Your task to perform on an android device: Is it going to rain this weekend? Image 0: 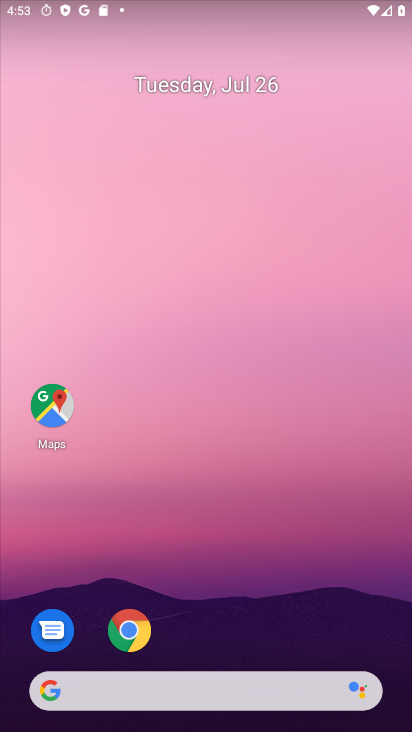
Step 0: drag from (310, 543) to (257, 140)
Your task to perform on an android device: Is it going to rain this weekend? Image 1: 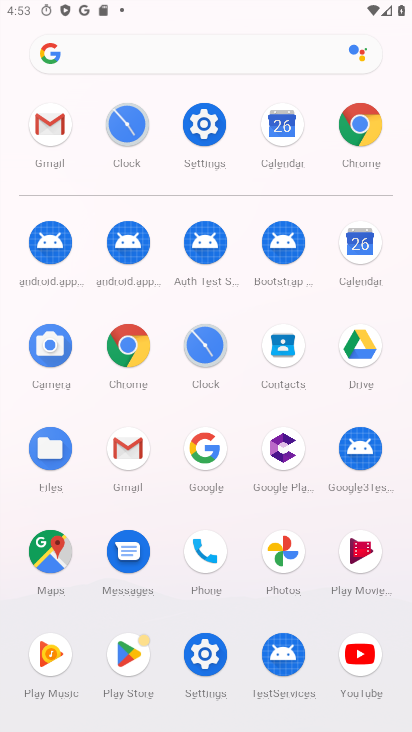
Step 1: click (363, 127)
Your task to perform on an android device: Is it going to rain this weekend? Image 2: 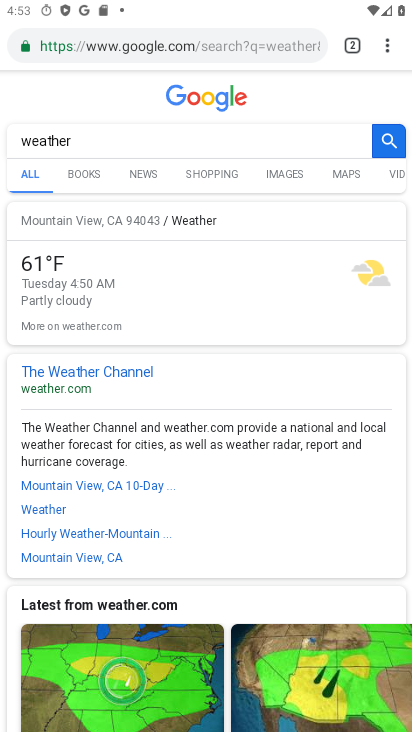
Step 2: click (236, 49)
Your task to perform on an android device: Is it going to rain this weekend? Image 3: 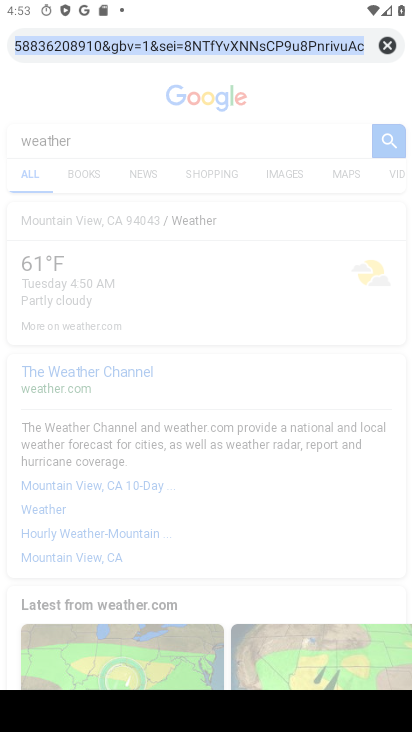
Step 3: type "weather"
Your task to perform on an android device: Is it going to rain this weekend? Image 4: 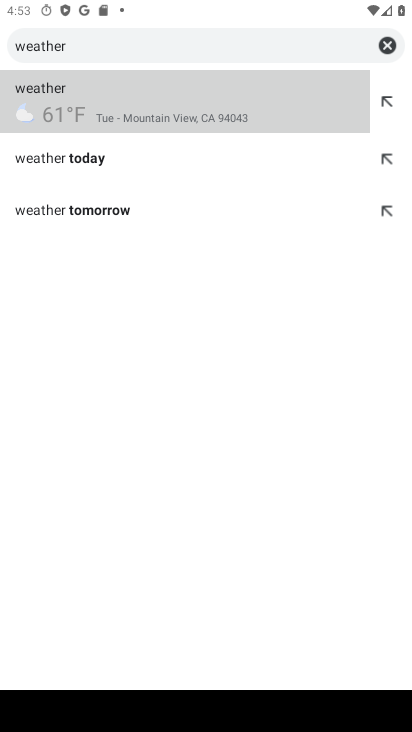
Step 4: click (134, 125)
Your task to perform on an android device: Is it going to rain this weekend? Image 5: 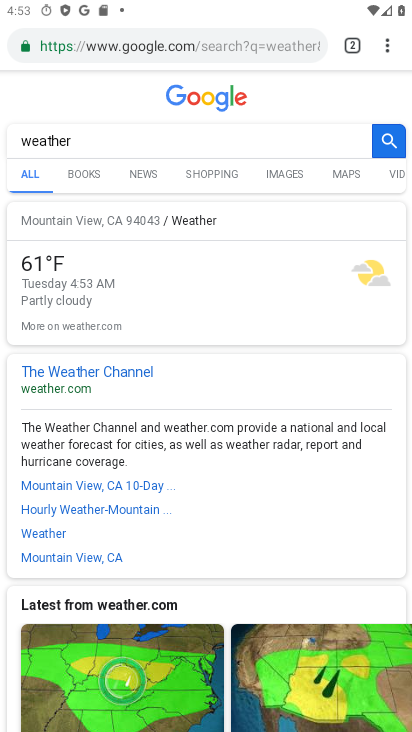
Step 5: click (201, 142)
Your task to perform on an android device: Is it going to rain this weekend? Image 6: 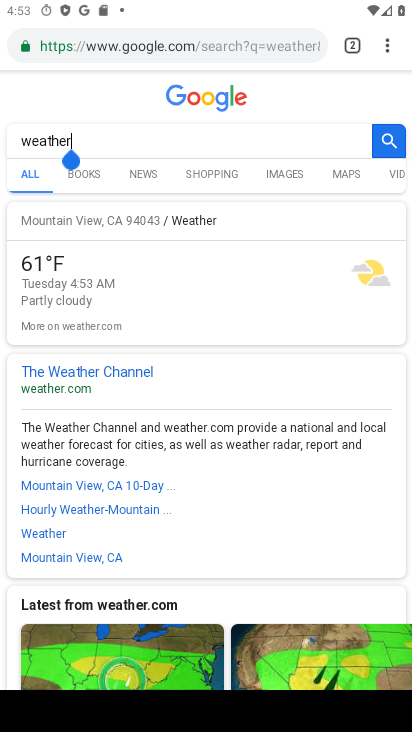
Step 6: type " weekend"
Your task to perform on an android device: Is it going to rain this weekend? Image 7: 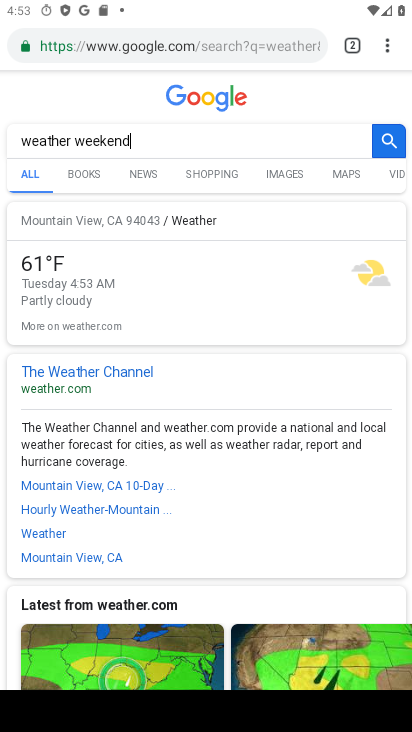
Step 7: click (394, 135)
Your task to perform on an android device: Is it going to rain this weekend? Image 8: 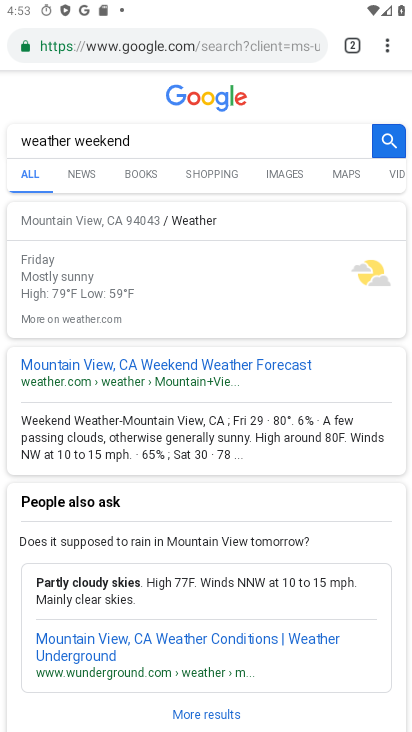
Step 8: task complete